Your task to perform on an android device: Open the web browser Image 0: 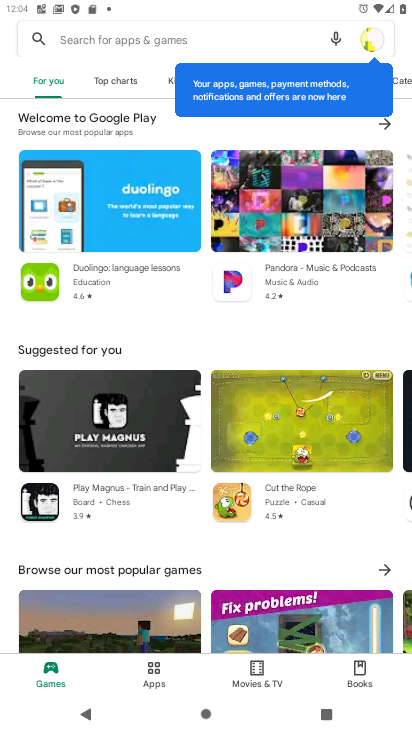
Step 0: press home button
Your task to perform on an android device: Open the web browser Image 1: 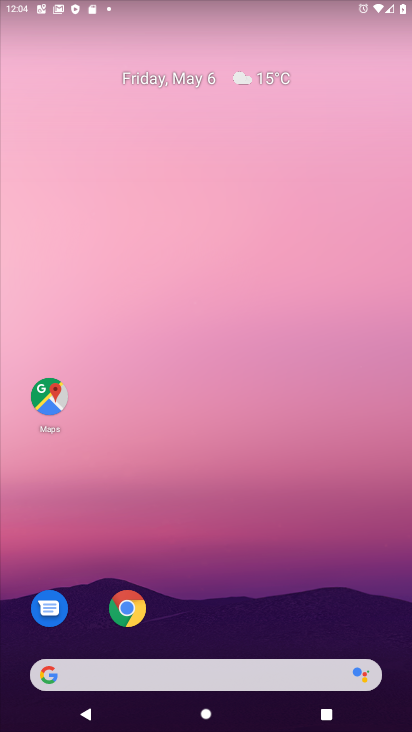
Step 1: click (141, 609)
Your task to perform on an android device: Open the web browser Image 2: 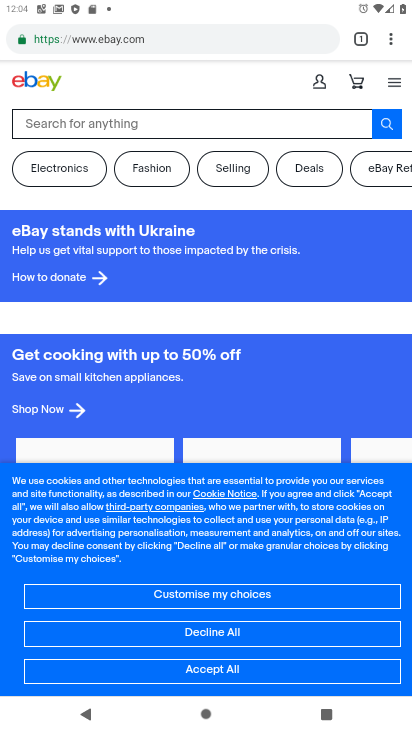
Step 2: task complete